Your task to perform on an android device: toggle data saver in the chrome app Image 0: 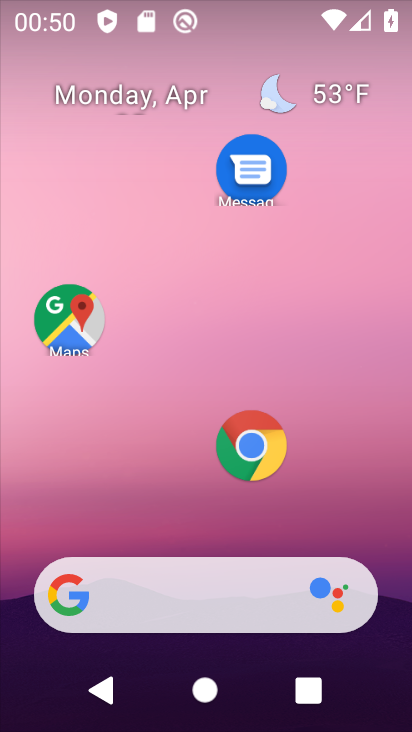
Step 0: click (258, 442)
Your task to perform on an android device: toggle data saver in the chrome app Image 1: 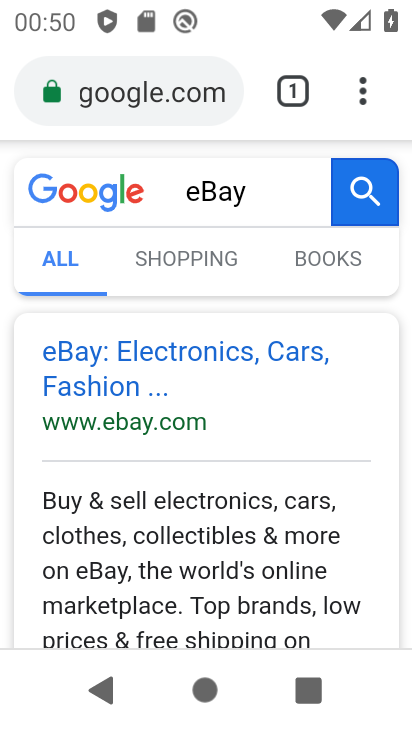
Step 1: click (371, 103)
Your task to perform on an android device: toggle data saver in the chrome app Image 2: 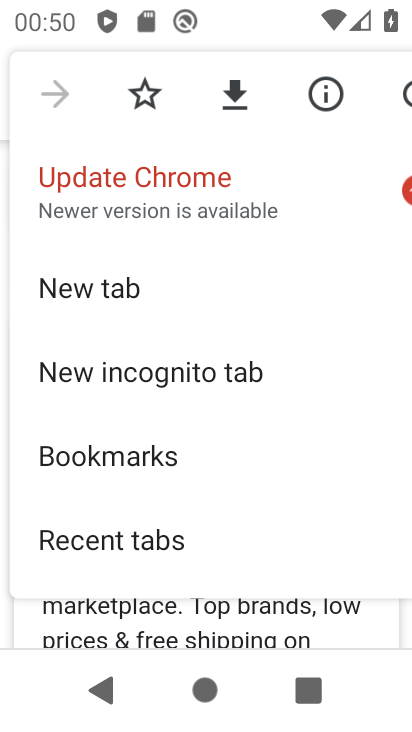
Step 2: drag from (168, 547) to (229, 171)
Your task to perform on an android device: toggle data saver in the chrome app Image 3: 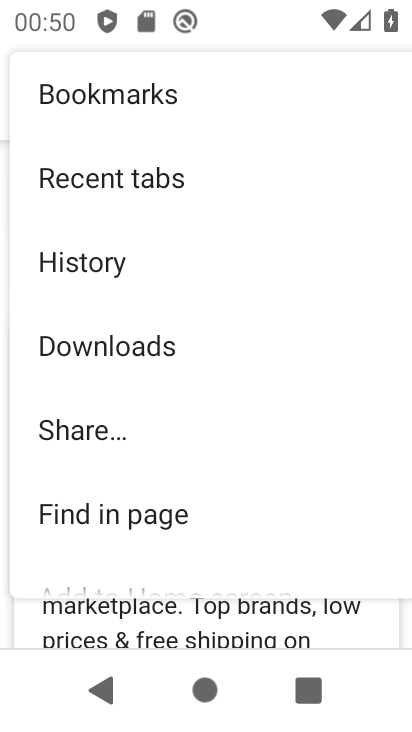
Step 3: drag from (137, 496) to (211, 89)
Your task to perform on an android device: toggle data saver in the chrome app Image 4: 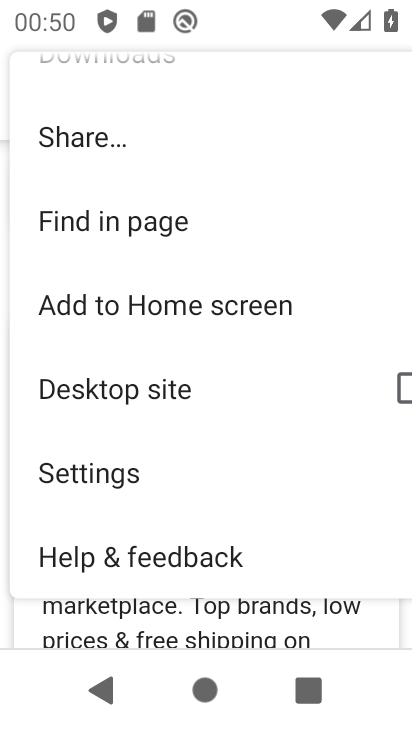
Step 4: click (99, 474)
Your task to perform on an android device: toggle data saver in the chrome app Image 5: 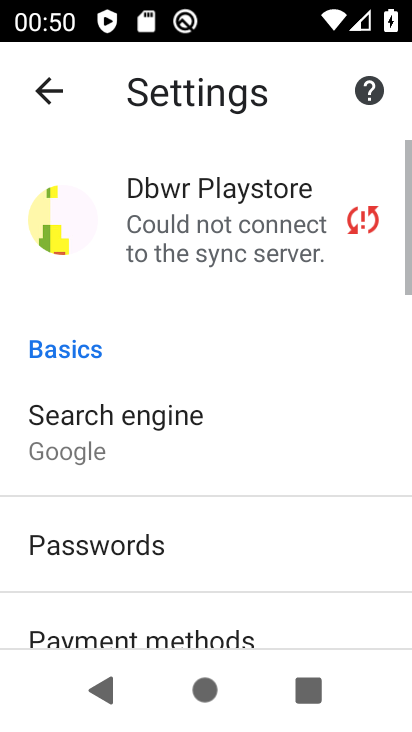
Step 5: drag from (154, 480) to (230, 177)
Your task to perform on an android device: toggle data saver in the chrome app Image 6: 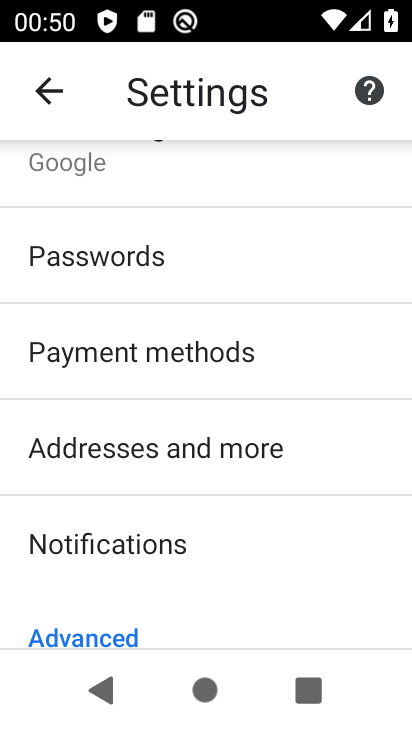
Step 6: drag from (150, 527) to (207, 186)
Your task to perform on an android device: toggle data saver in the chrome app Image 7: 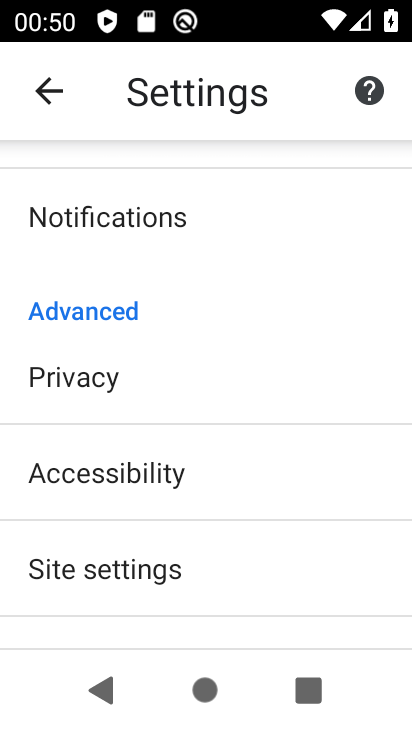
Step 7: drag from (141, 552) to (206, 215)
Your task to perform on an android device: toggle data saver in the chrome app Image 8: 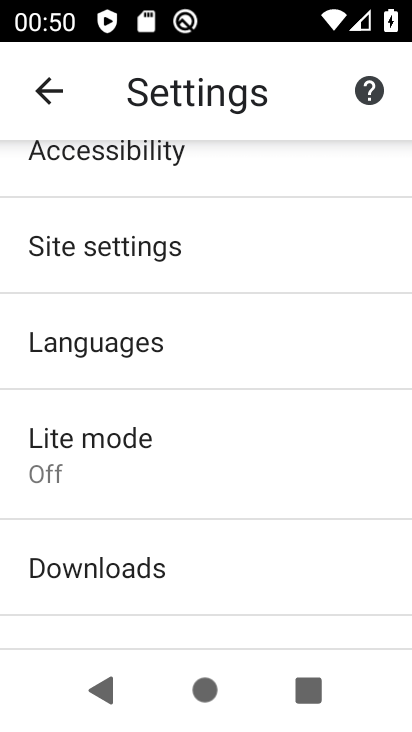
Step 8: click (103, 453)
Your task to perform on an android device: toggle data saver in the chrome app Image 9: 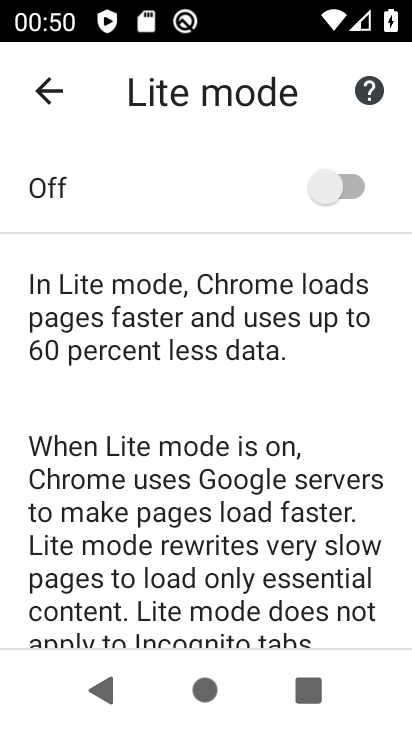
Step 9: click (334, 182)
Your task to perform on an android device: toggle data saver in the chrome app Image 10: 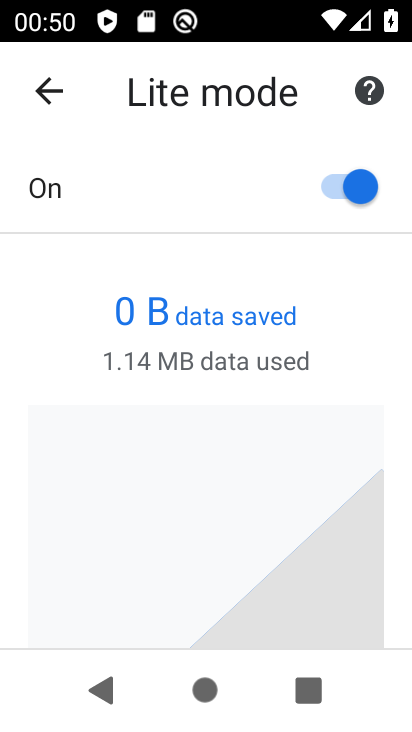
Step 10: task complete